Your task to perform on an android device: Go to accessibility settings Image 0: 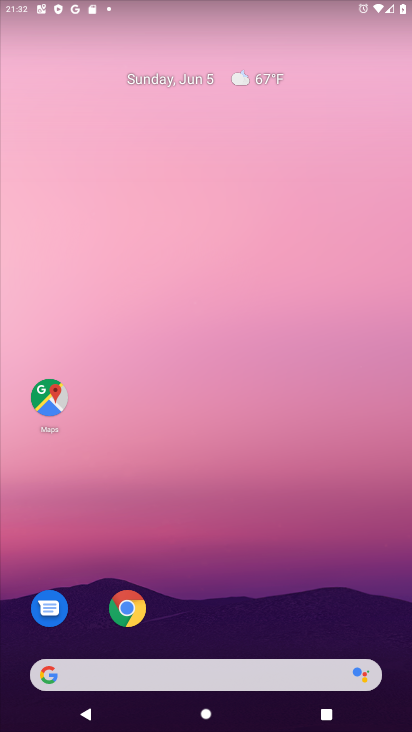
Step 0: drag from (36, 546) to (299, 130)
Your task to perform on an android device: Go to accessibility settings Image 1: 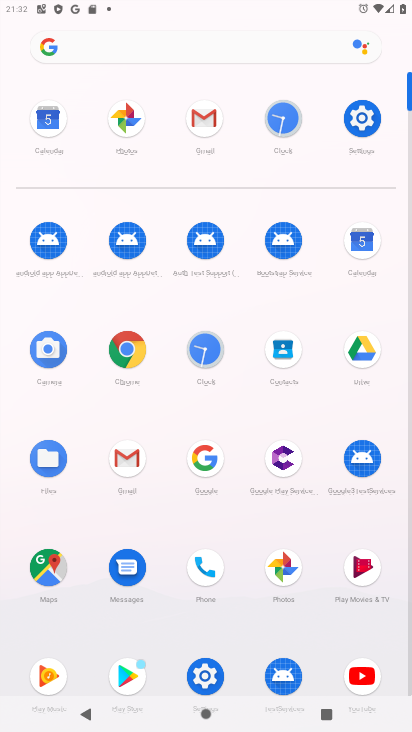
Step 1: click (372, 113)
Your task to perform on an android device: Go to accessibility settings Image 2: 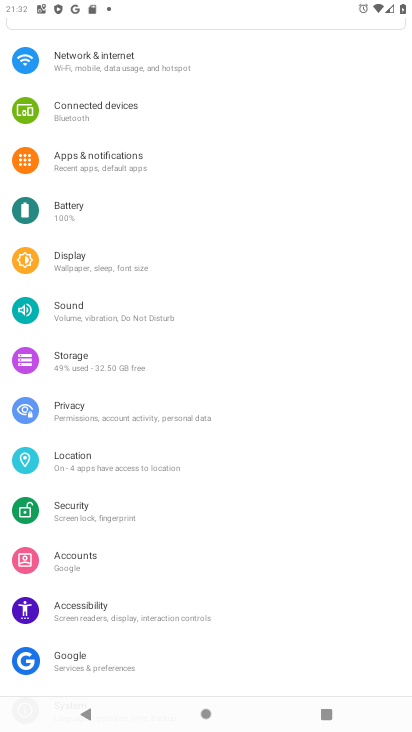
Step 2: click (153, 604)
Your task to perform on an android device: Go to accessibility settings Image 3: 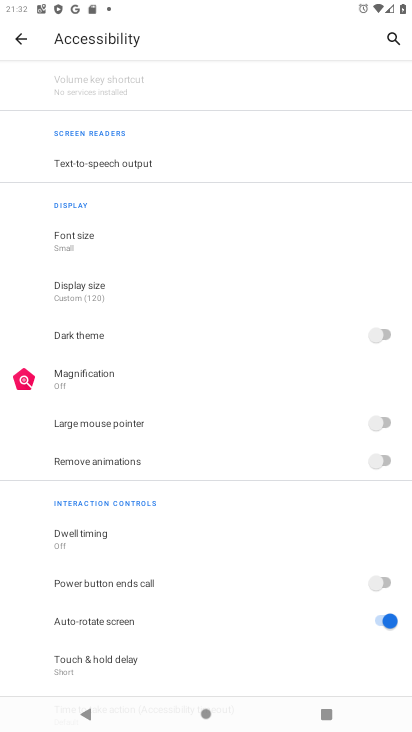
Step 3: task complete